Your task to perform on an android device: turn pop-ups on in chrome Image 0: 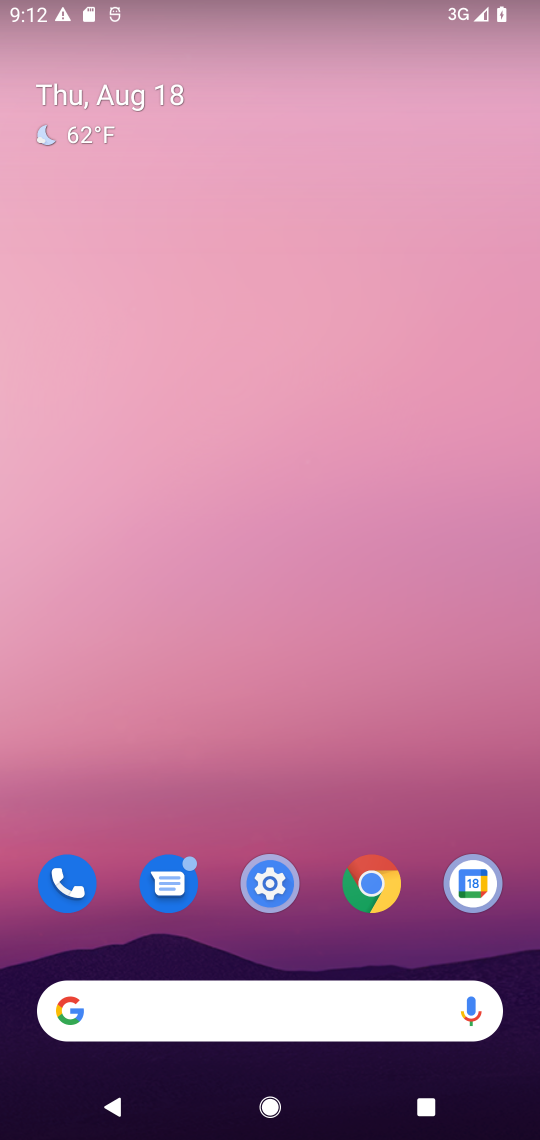
Step 0: click (388, 867)
Your task to perform on an android device: turn pop-ups on in chrome Image 1: 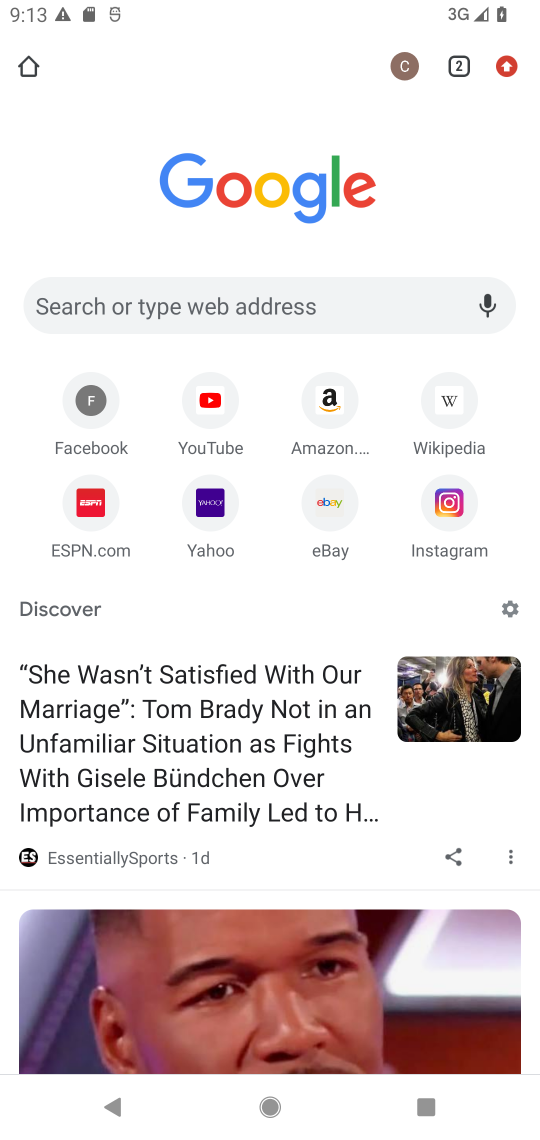
Step 1: click (511, 71)
Your task to perform on an android device: turn pop-ups on in chrome Image 2: 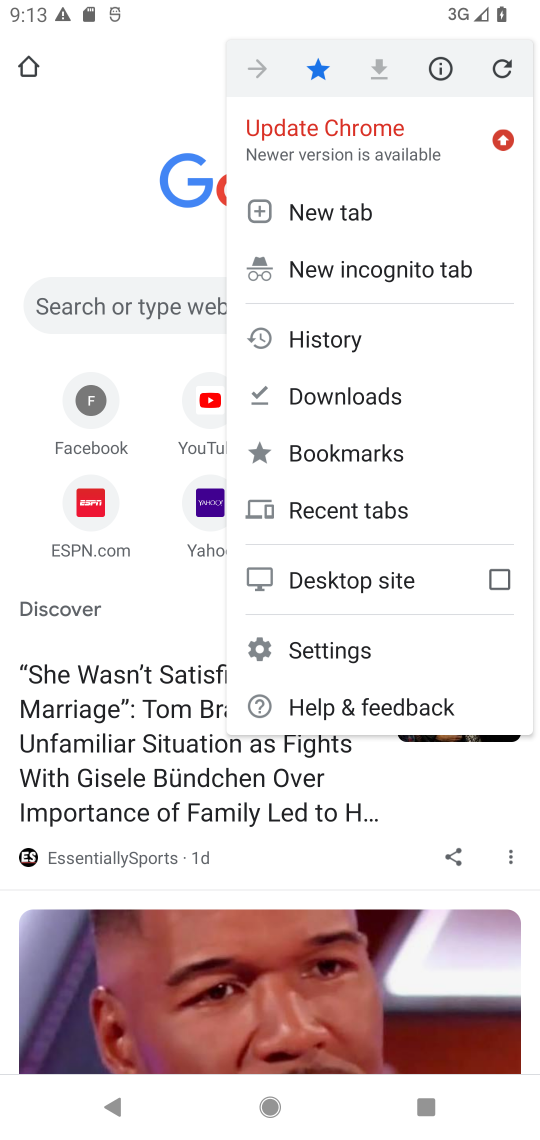
Step 2: click (352, 655)
Your task to perform on an android device: turn pop-ups on in chrome Image 3: 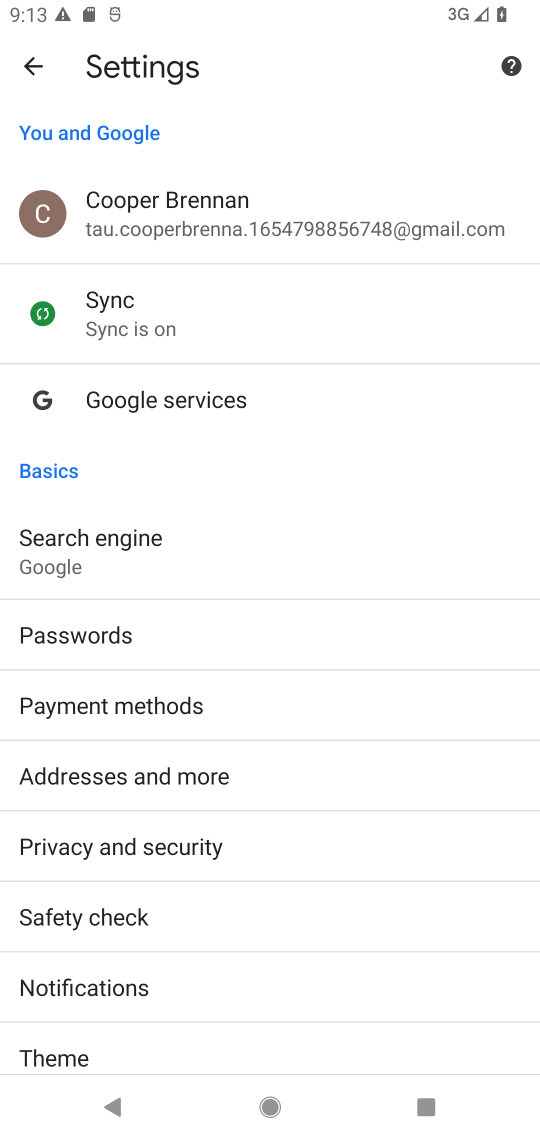
Step 3: drag from (342, 1040) to (340, 449)
Your task to perform on an android device: turn pop-ups on in chrome Image 4: 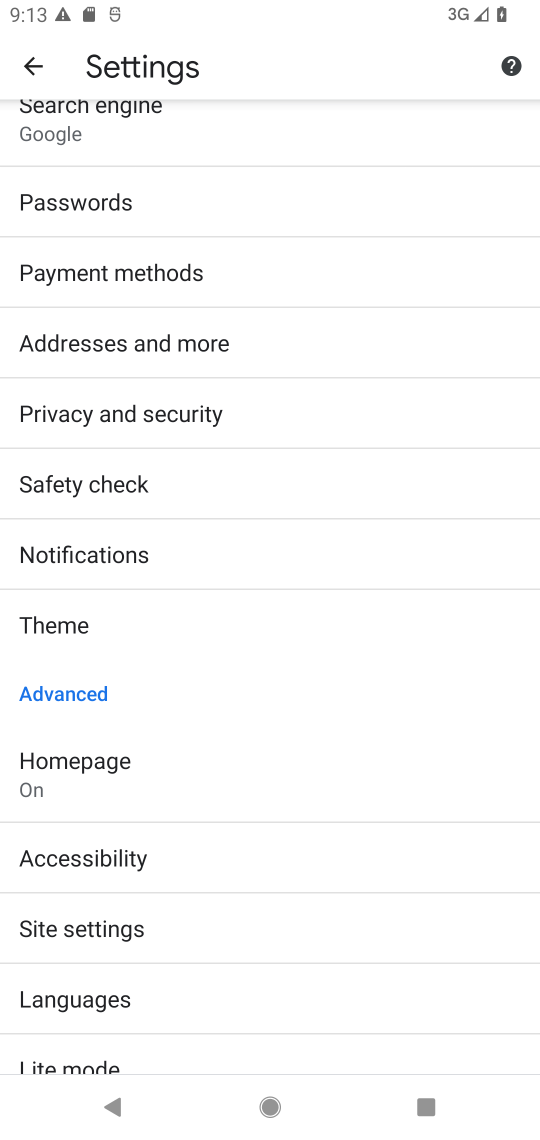
Step 4: drag from (274, 958) to (270, 650)
Your task to perform on an android device: turn pop-ups on in chrome Image 5: 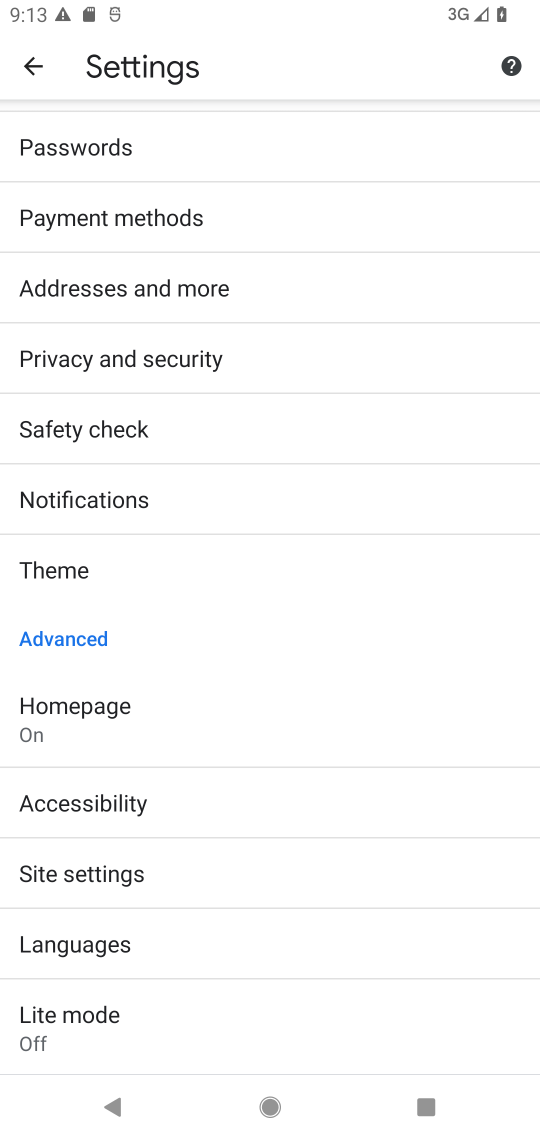
Step 5: drag from (297, 141) to (344, 696)
Your task to perform on an android device: turn pop-ups on in chrome Image 6: 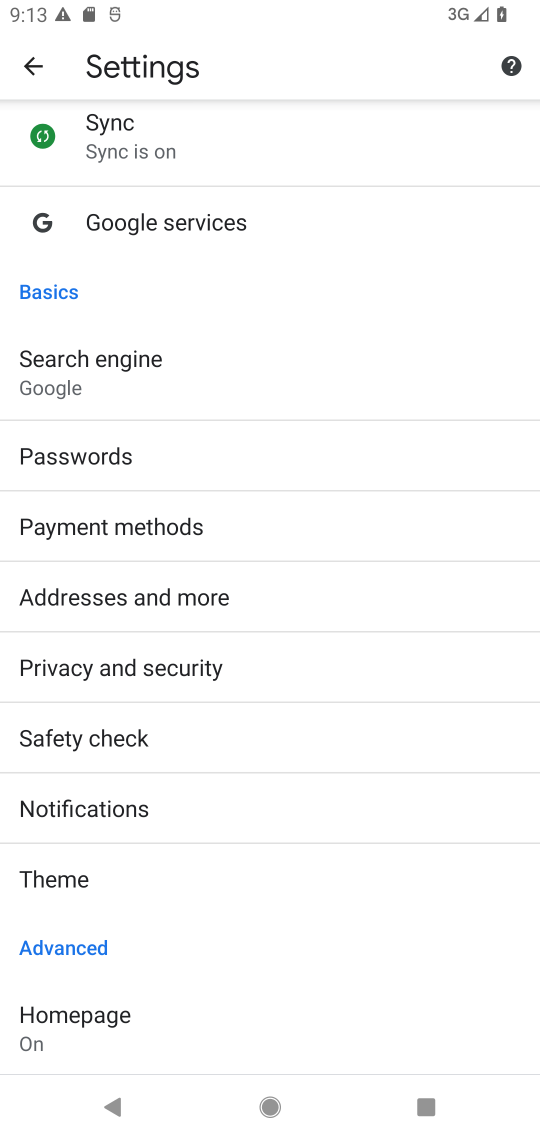
Step 6: drag from (328, 943) to (351, 447)
Your task to perform on an android device: turn pop-ups on in chrome Image 7: 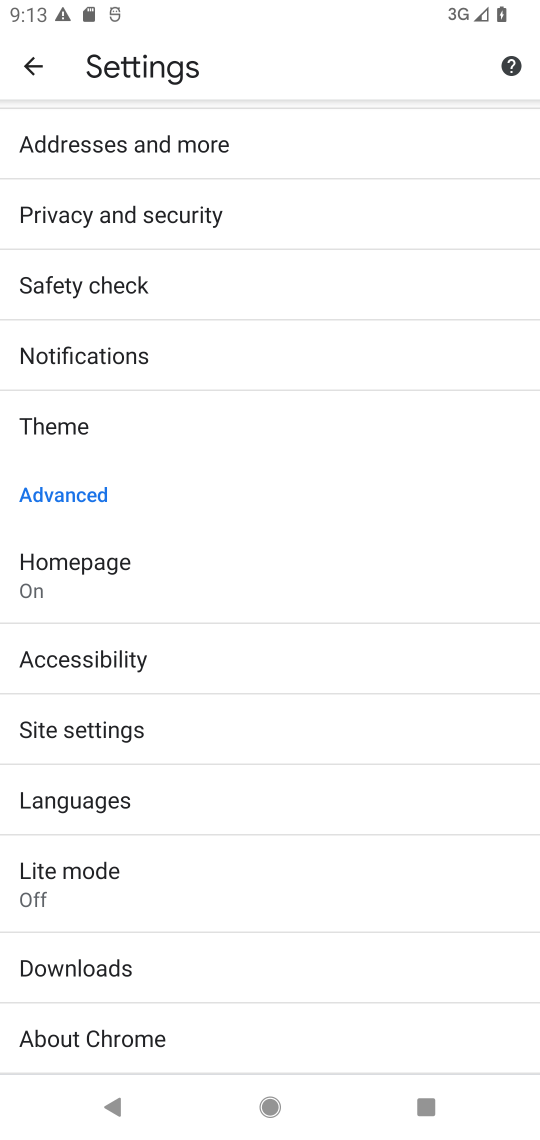
Step 7: drag from (344, 106) to (412, 890)
Your task to perform on an android device: turn pop-ups on in chrome Image 8: 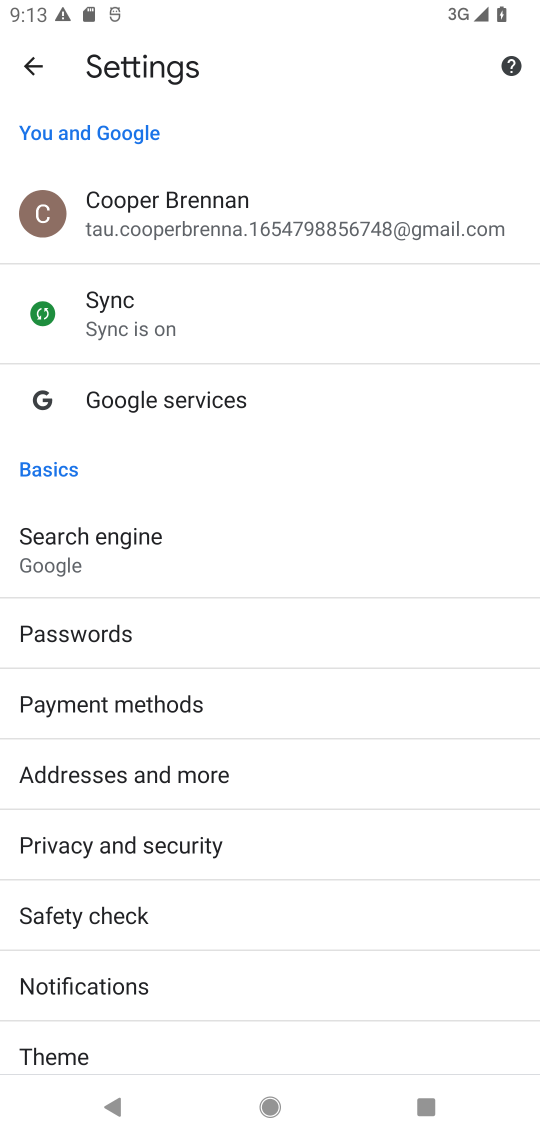
Step 8: drag from (369, 972) to (357, 429)
Your task to perform on an android device: turn pop-ups on in chrome Image 9: 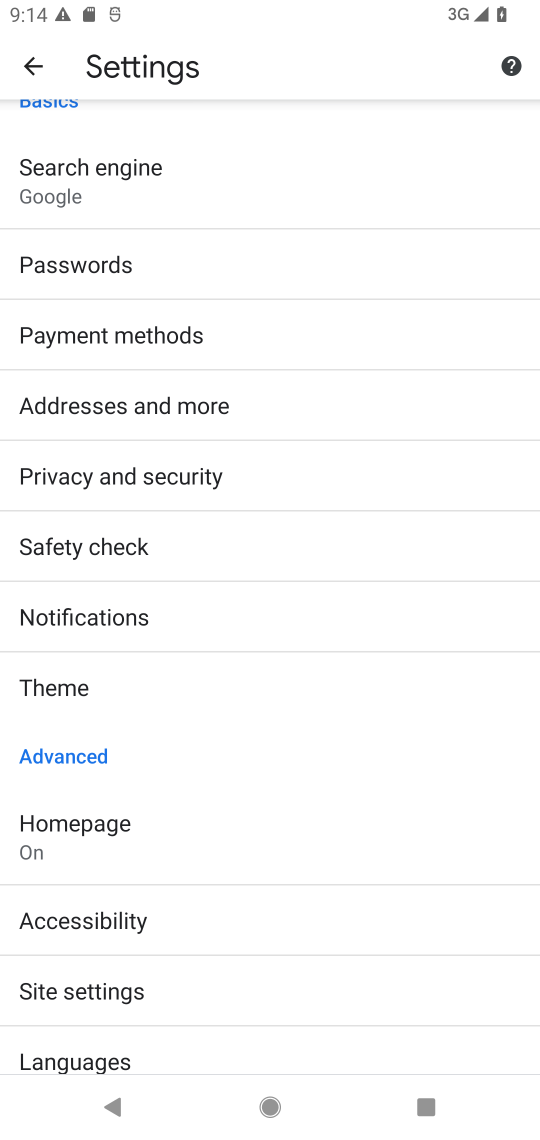
Step 9: drag from (286, 1019) to (328, 282)
Your task to perform on an android device: turn pop-ups on in chrome Image 10: 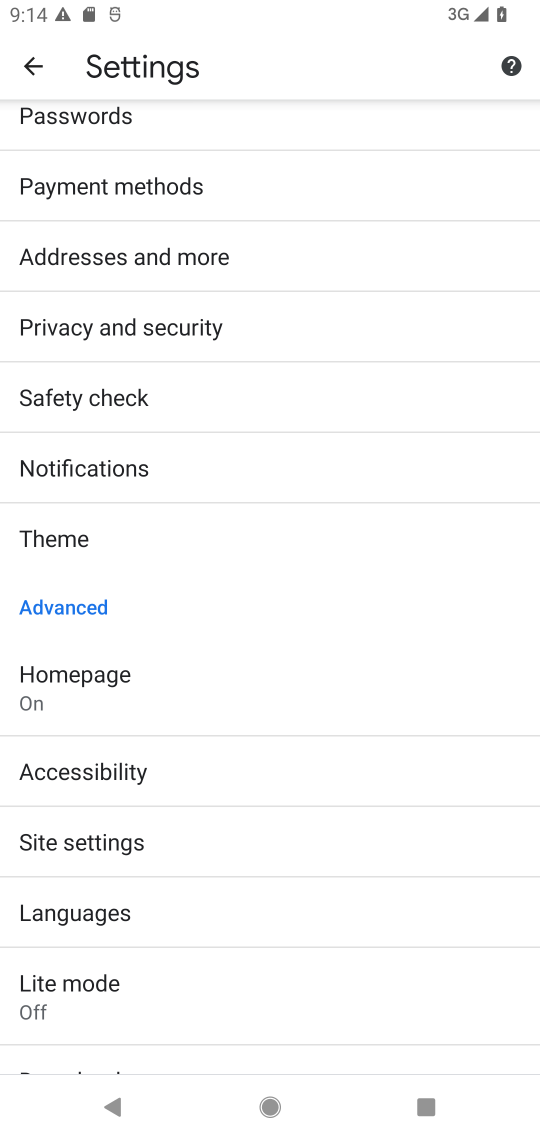
Step 10: click (98, 845)
Your task to perform on an android device: turn pop-ups on in chrome Image 11: 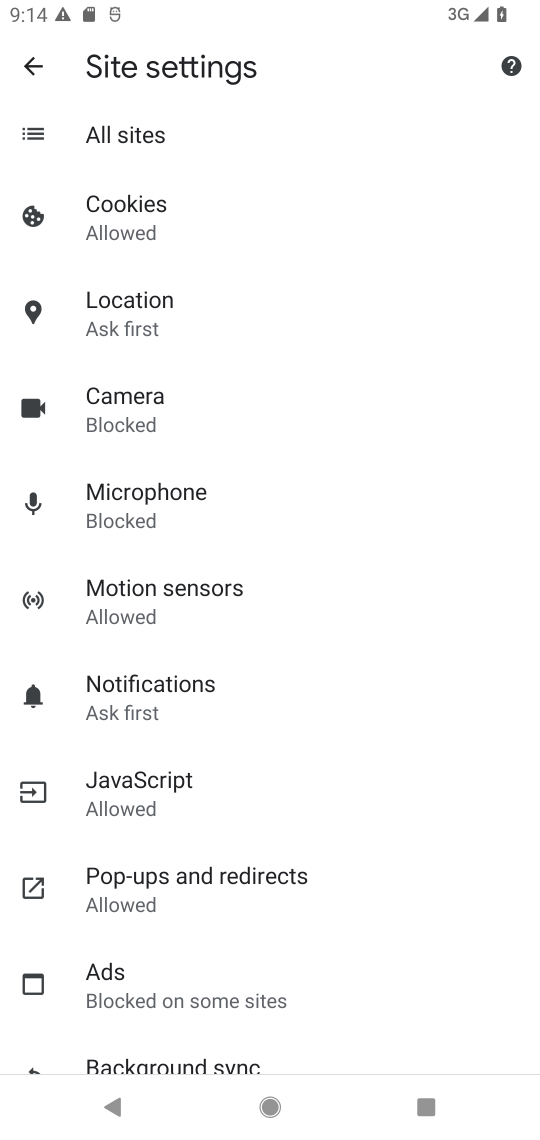
Step 11: click (168, 868)
Your task to perform on an android device: turn pop-ups on in chrome Image 12: 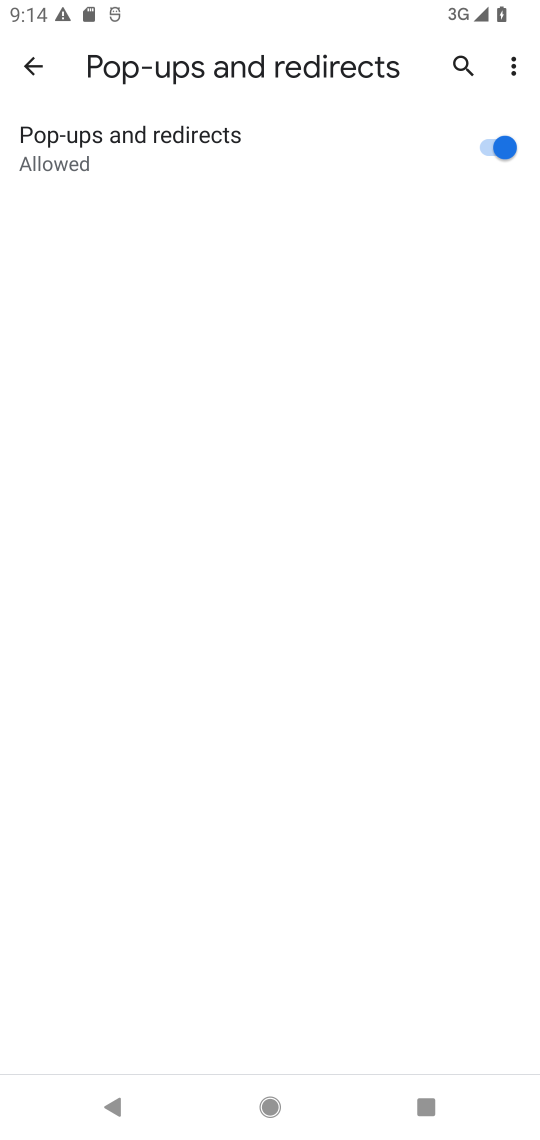
Step 12: task complete